Your task to perform on an android device: How much does a 2x4x8 board cost at Lowes? Image 0: 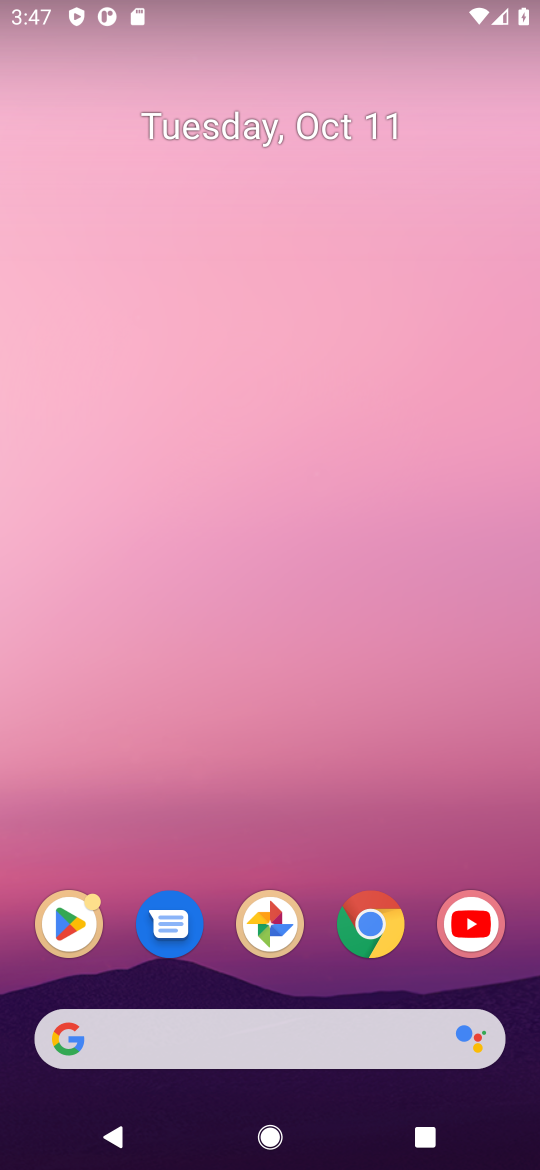
Step 0: click (467, 680)
Your task to perform on an android device: How much does a 2x4x8 board cost at Lowes? Image 1: 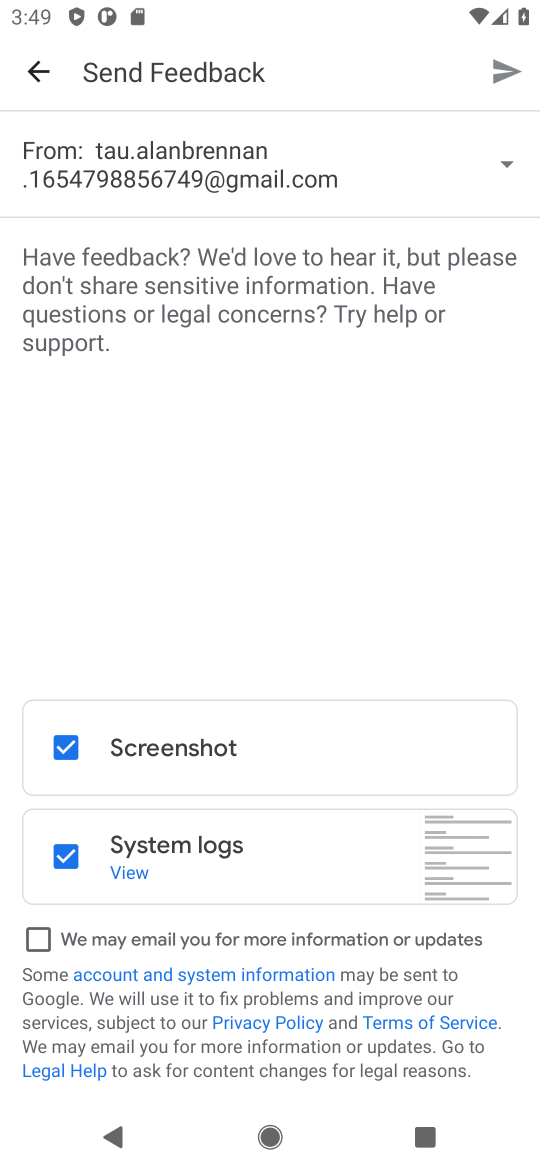
Step 1: press home button
Your task to perform on an android device: How much does a 2x4x8 board cost at Lowes? Image 2: 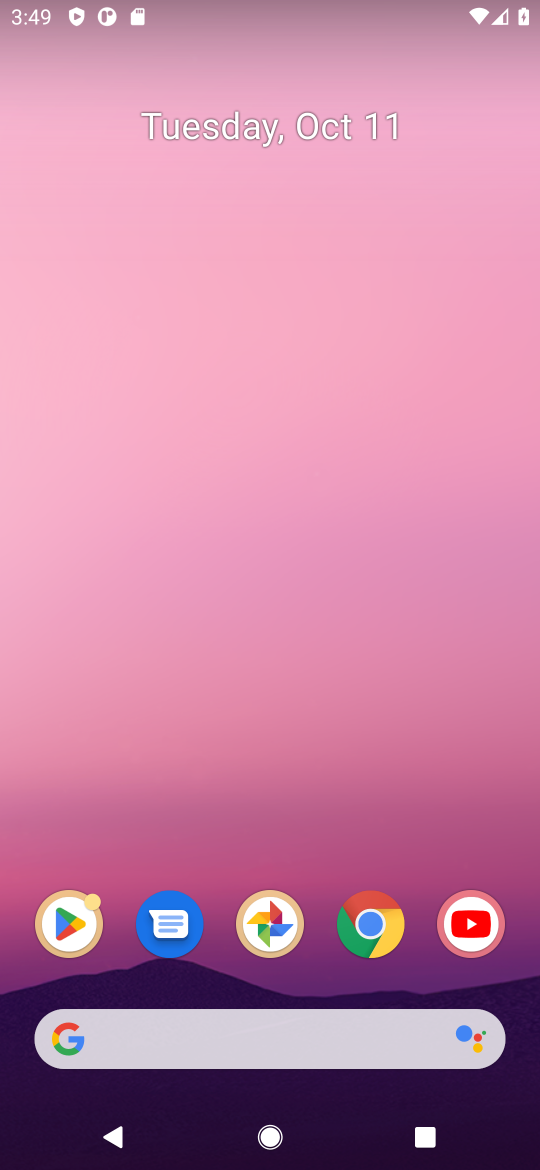
Step 2: drag from (319, 985) to (258, 163)
Your task to perform on an android device: How much does a 2x4x8 board cost at Lowes? Image 3: 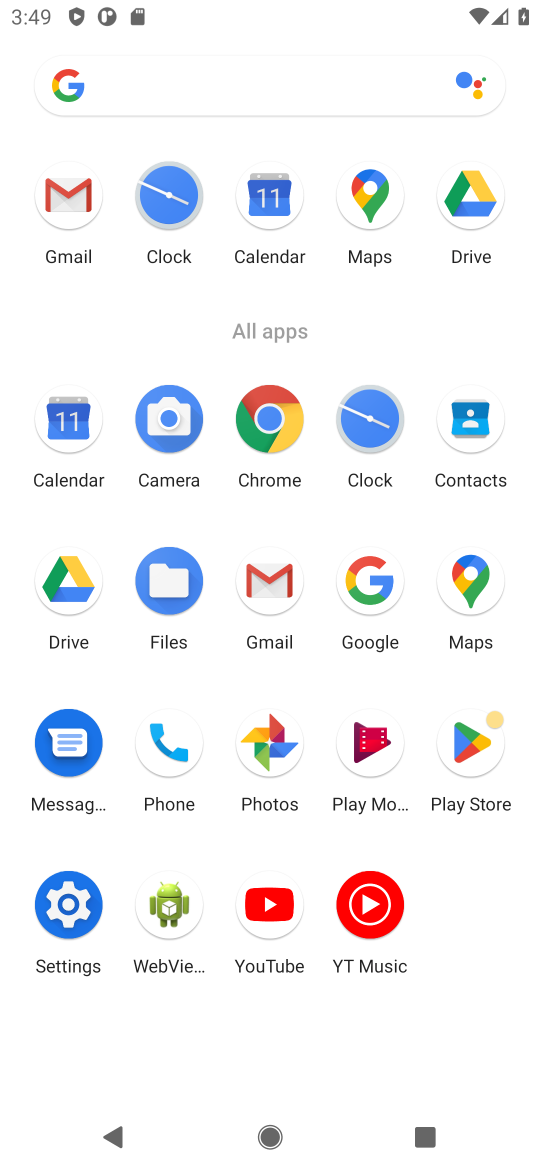
Step 3: click (272, 414)
Your task to perform on an android device: How much does a 2x4x8 board cost at Lowes? Image 4: 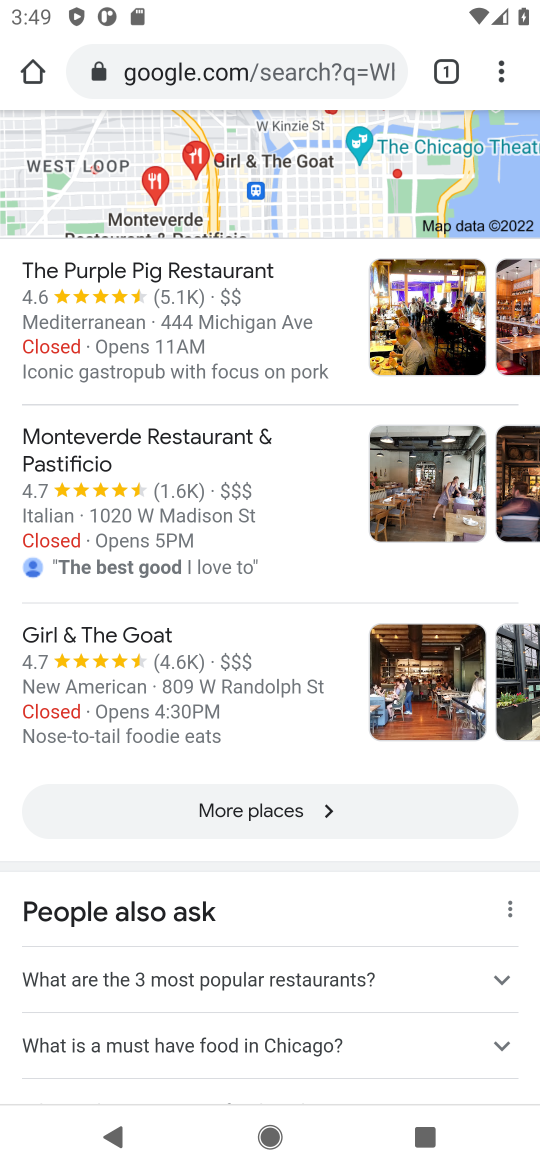
Step 4: click (211, 62)
Your task to perform on an android device: How much does a 2x4x8 board cost at Lowes? Image 5: 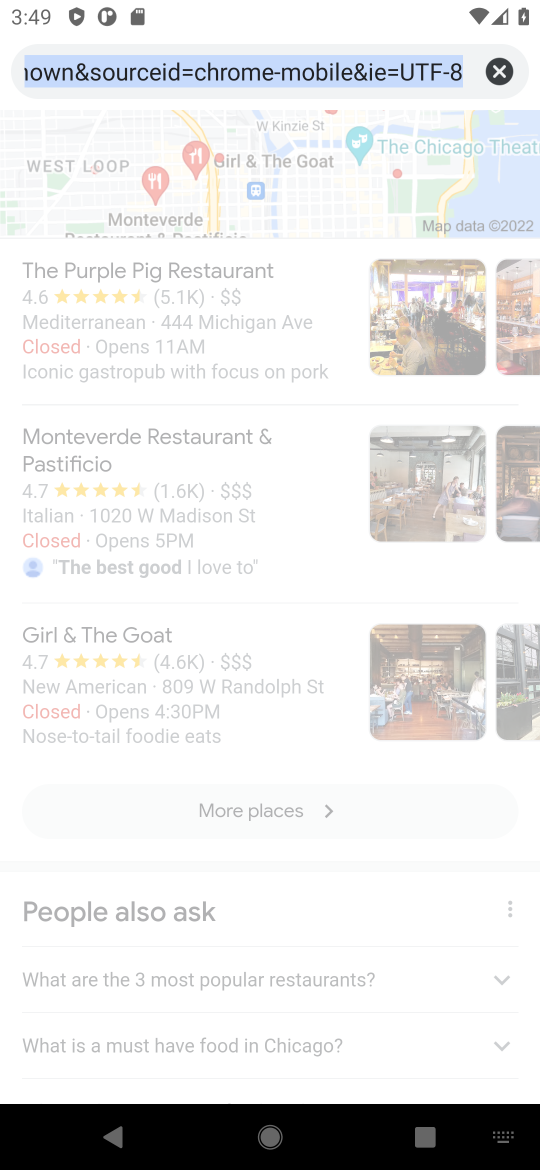
Step 5: type "how much does a 2*4*8 board cost at Lowes?"
Your task to perform on an android device: How much does a 2x4x8 board cost at Lowes? Image 6: 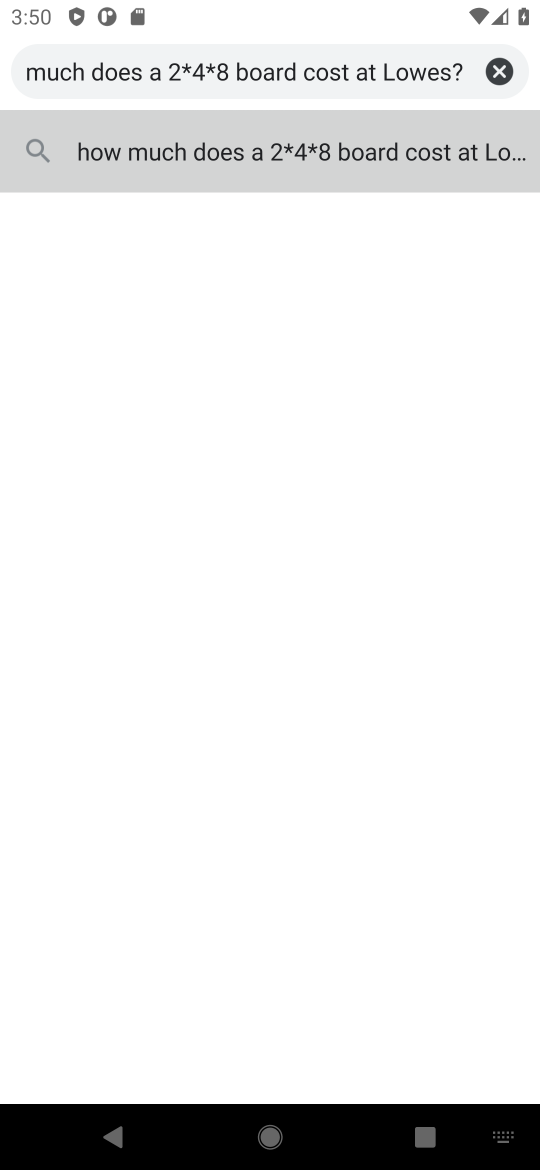
Step 6: press enter
Your task to perform on an android device: How much does a 2x4x8 board cost at Lowes? Image 7: 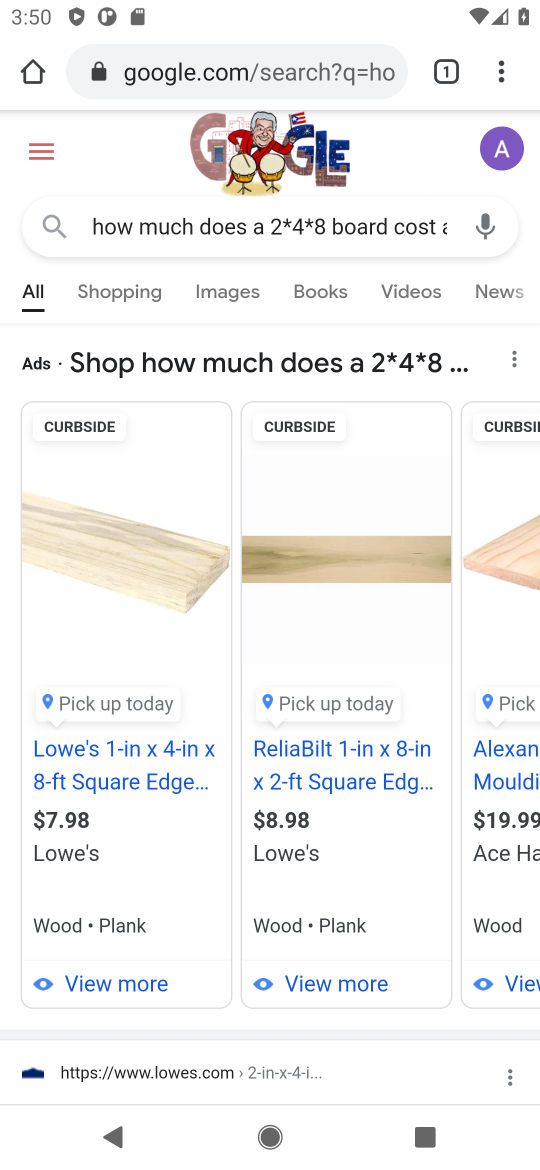
Step 7: task complete